Your task to perform on an android device: What's the weather today? Image 0: 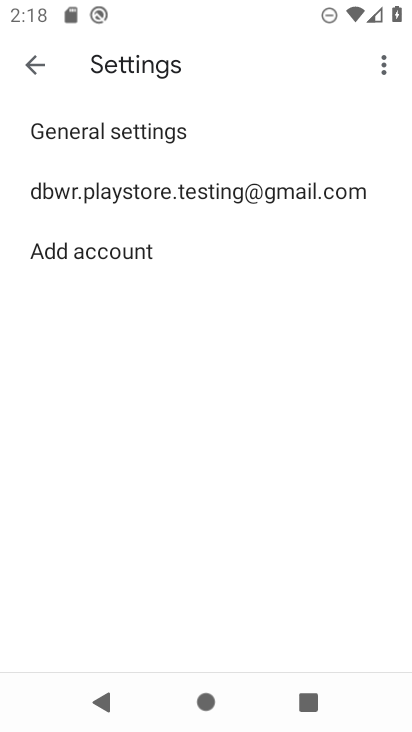
Step 0: press home button
Your task to perform on an android device: What's the weather today? Image 1: 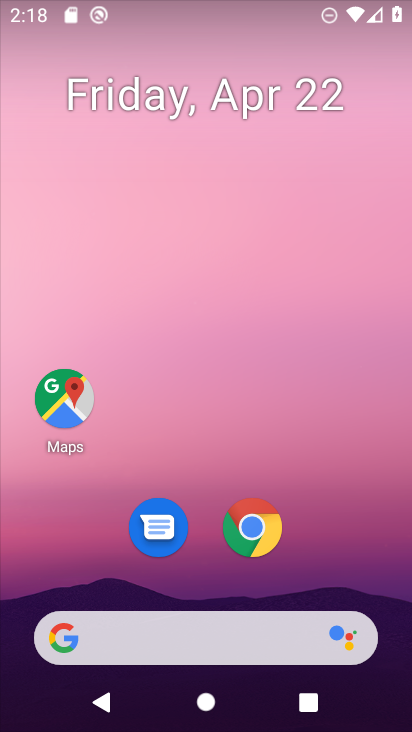
Step 1: drag from (334, 545) to (378, 103)
Your task to perform on an android device: What's the weather today? Image 2: 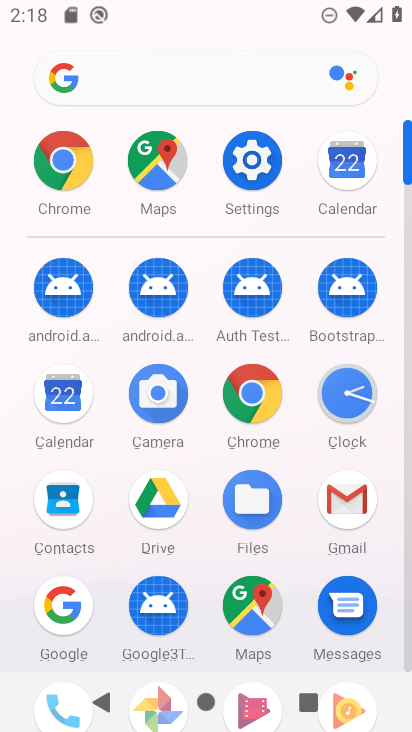
Step 2: click (55, 398)
Your task to perform on an android device: What's the weather today? Image 3: 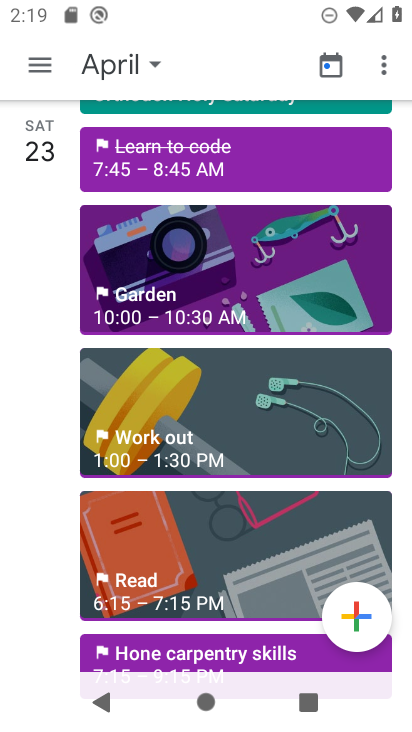
Step 3: task complete